Your task to perform on an android device: find which apps use the phone's location Image 0: 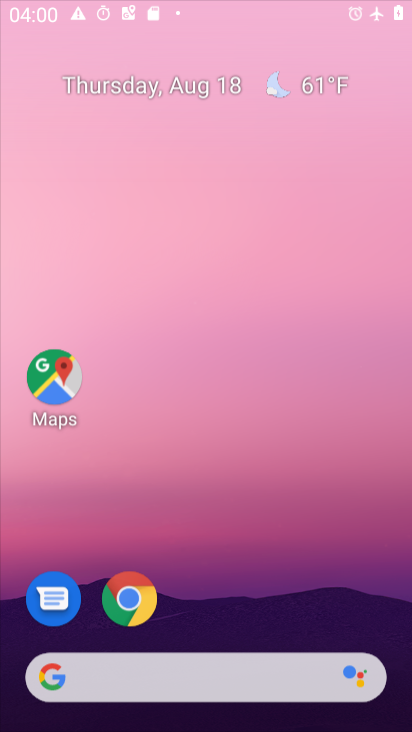
Step 0: press home button
Your task to perform on an android device: find which apps use the phone's location Image 1: 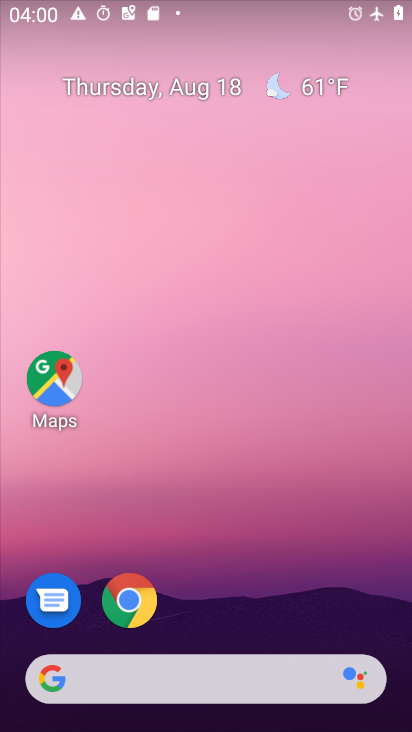
Step 1: drag from (209, 635) to (310, 118)
Your task to perform on an android device: find which apps use the phone's location Image 2: 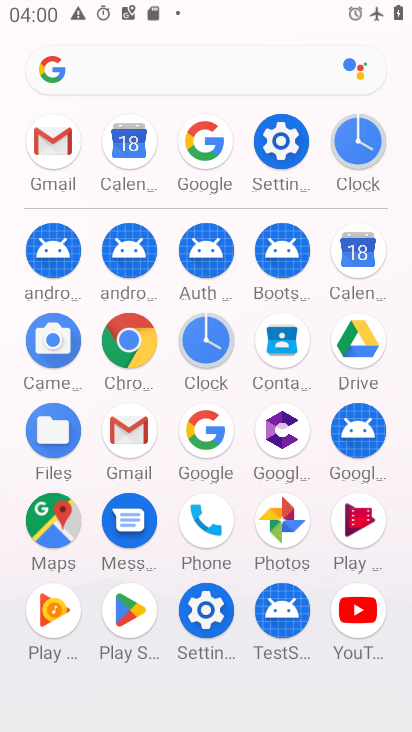
Step 2: click (271, 148)
Your task to perform on an android device: find which apps use the phone's location Image 3: 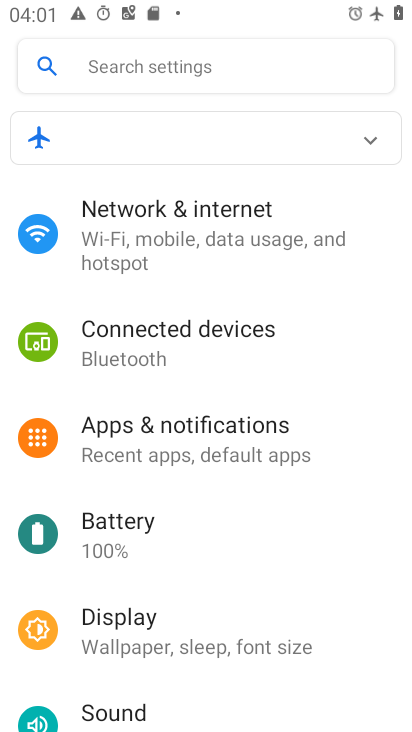
Step 3: drag from (281, 705) to (286, 378)
Your task to perform on an android device: find which apps use the phone's location Image 4: 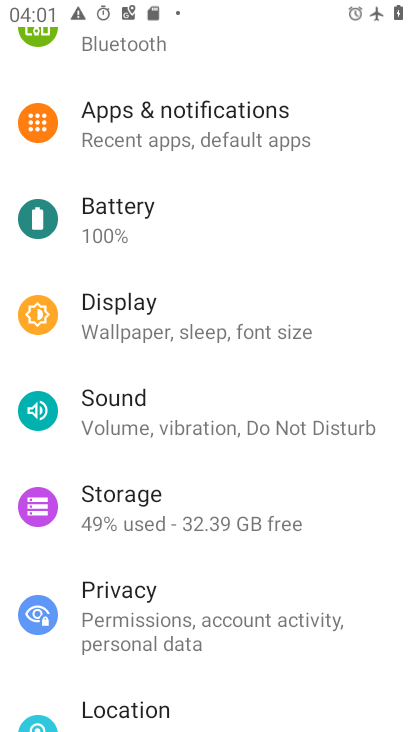
Step 4: click (130, 712)
Your task to perform on an android device: find which apps use the phone's location Image 5: 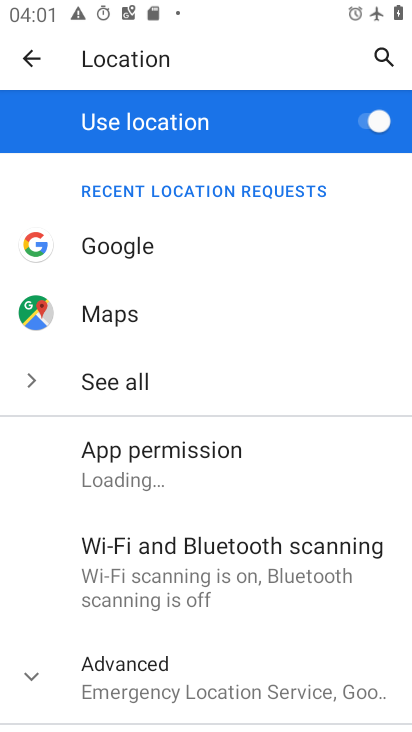
Step 5: click (158, 456)
Your task to perform on an android device: find which apps use the phone's location Image 6: 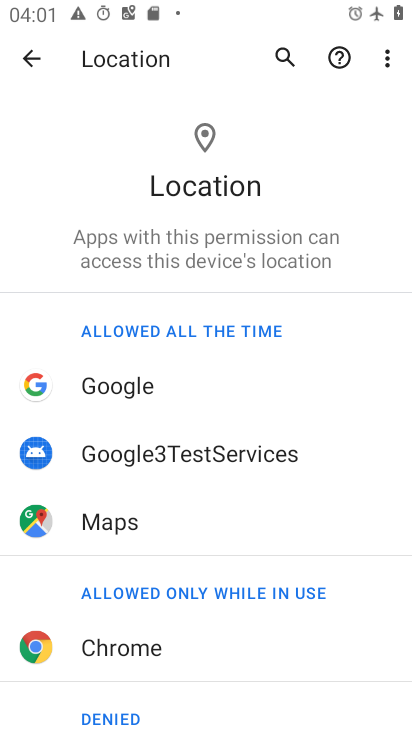
Step 6: task complete